Your task to perform on an android device: add a label to a message in the gmail app Image 0: 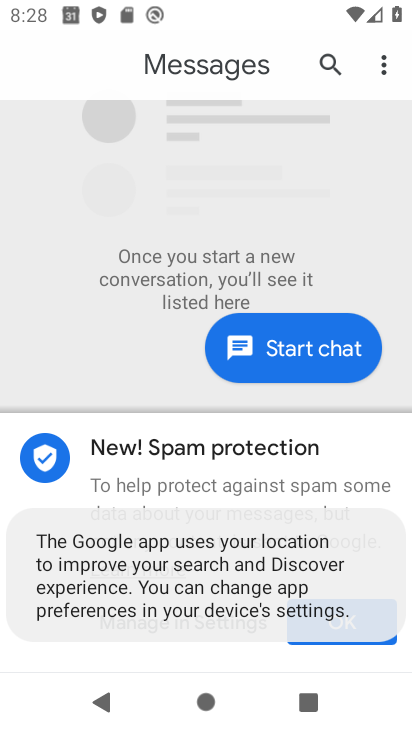
Step 0: press home button
Your task to perform on an android device: add a label to a message in the gmail app Image 1: 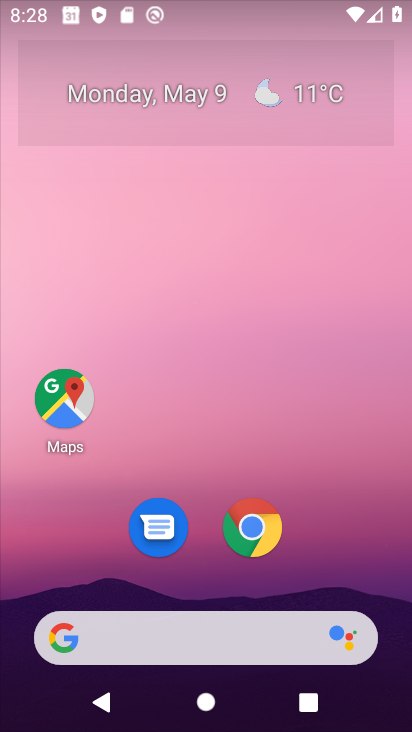
Step 1: drag from (216, 568) to (267, 90)
Your task to perform on an android device: add a label to a message in the gmail app Image 2: 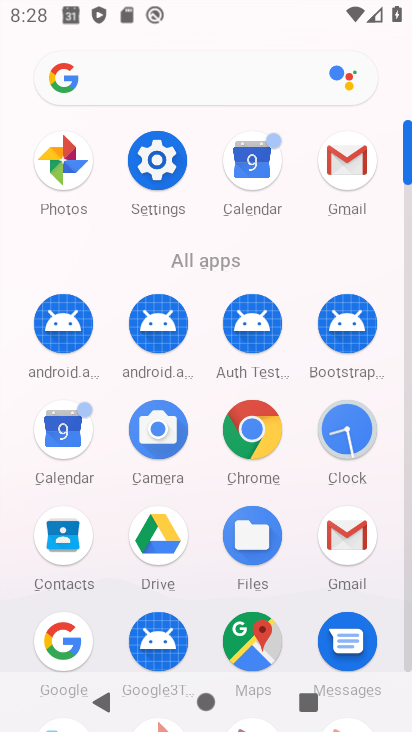
Step 2: click (344, 160)
Your task to perform on an android device: add a label to a message in the gmail app Image 3: 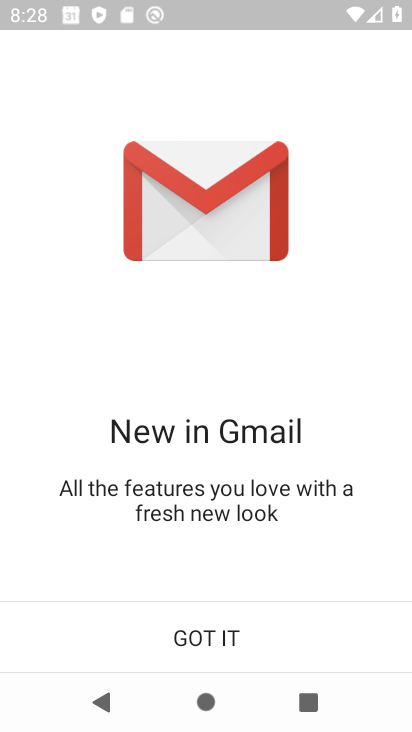
Step 3: click (207, 647)
Your task to perform on an android device: add a label to a message in the gmail app Image 4: 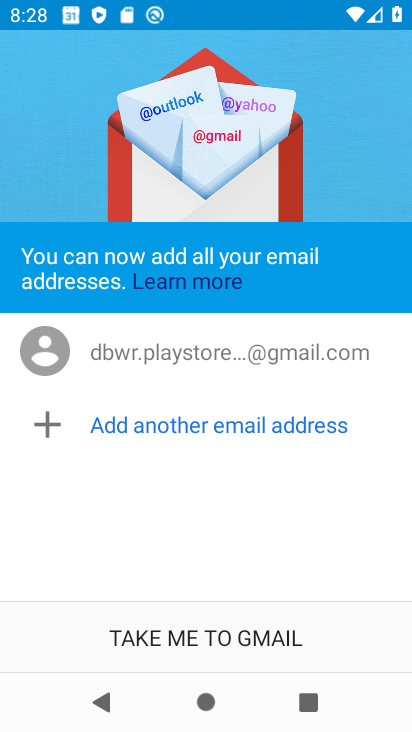
Step 4: click (175, 639)
Your task to perform on an android device: add a label to a message in the gmail app Image 5: 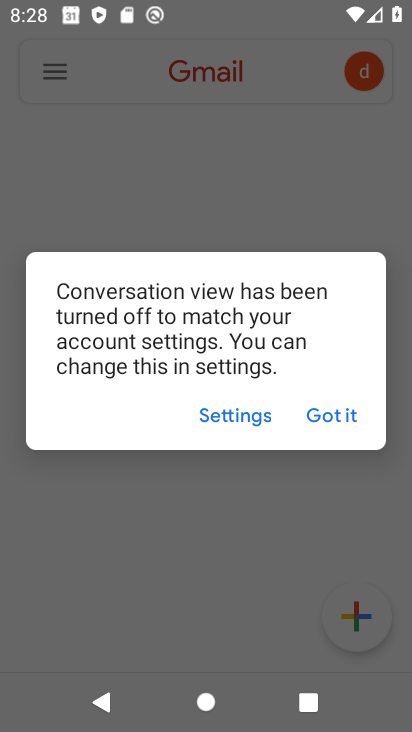
Step 5: click (334, 410)
Your task to perform on an android device: add a label to a message in the gmail app Image 6: 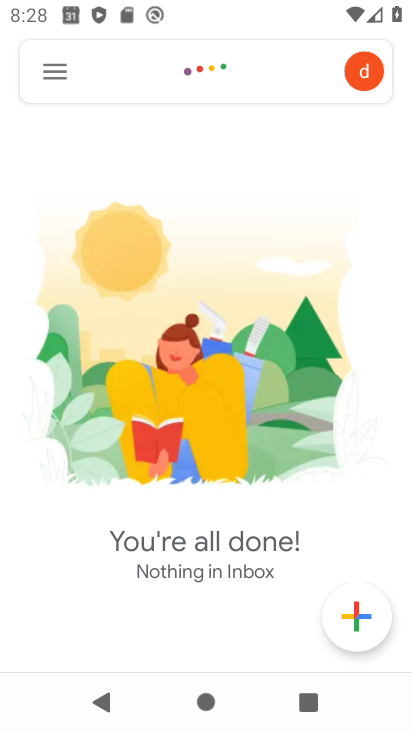
Step 6: click (62, 68)
Your task to perform on an android device: add a label to a message in the gmail app Image 7: 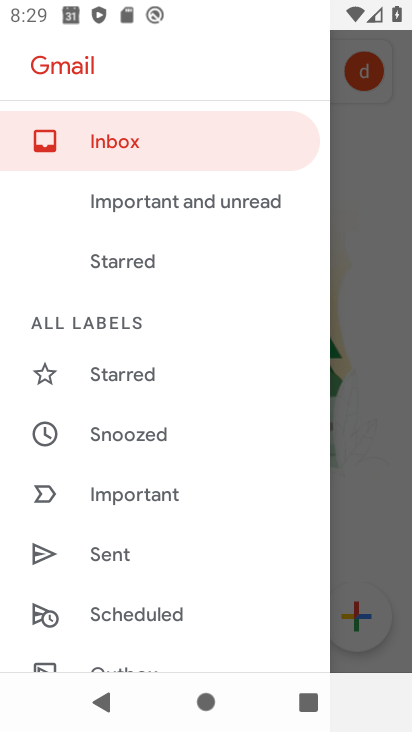
Step 7: drag from (169, 511) to (215, 113)
Your task to perform on an android device: add a label to a message in the gmail app Image 8: 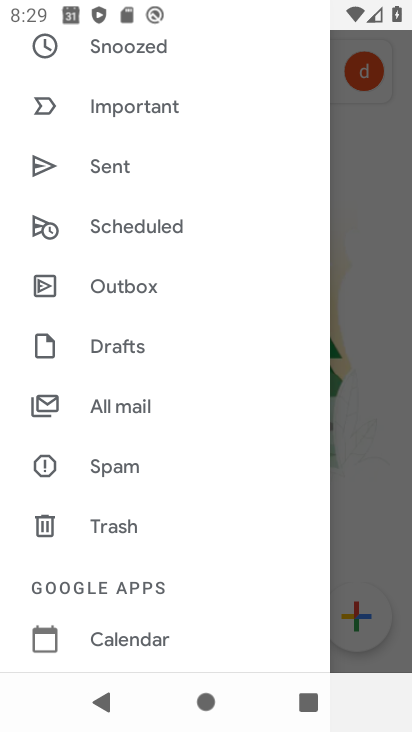
Step 8: click (165, 410)
Your task to perform on an android device: add a label to a message in the gmail app Image 9: 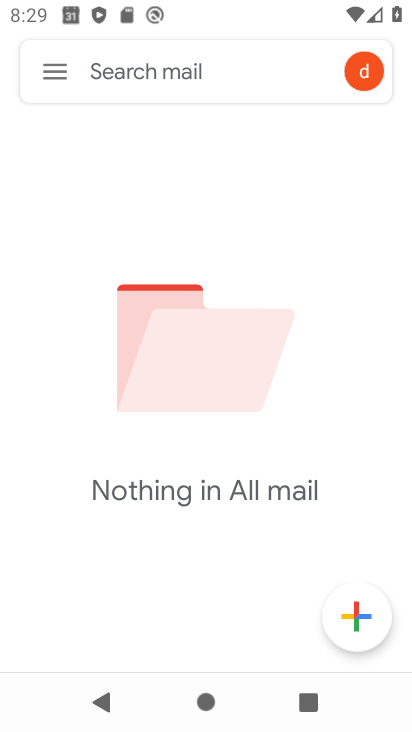
Step 9: task complete